Your task to perform on an android device: turn off translation in the chrome app Image 0: 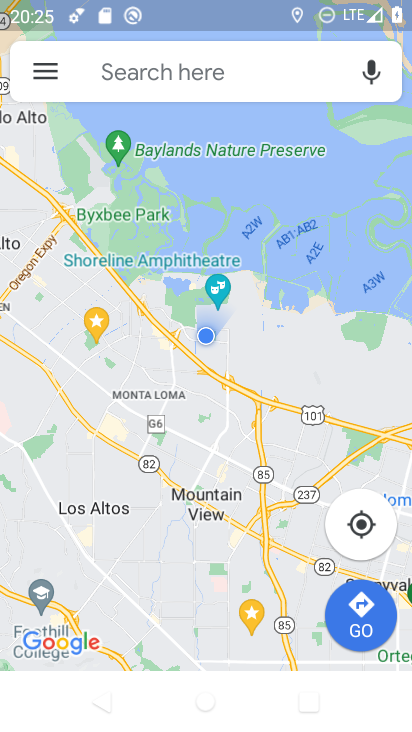
Step 0: press home button
Your task to perform on an android device: turn off translation in the chrome app Image 1: 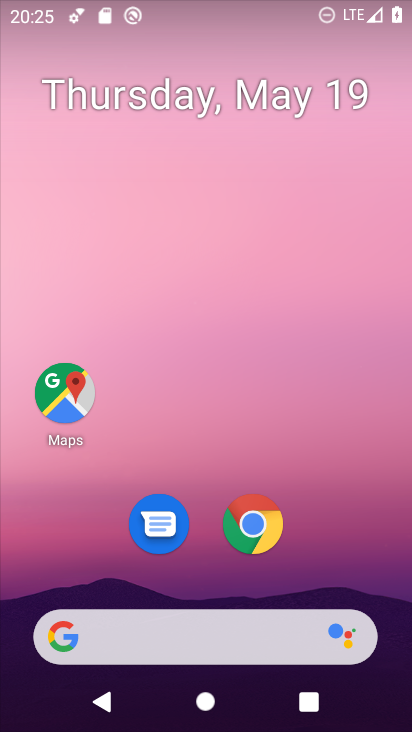
Step 1: click (257, 520)
Your task to perform on an android device: turn off translation in the chrome app Image 2: 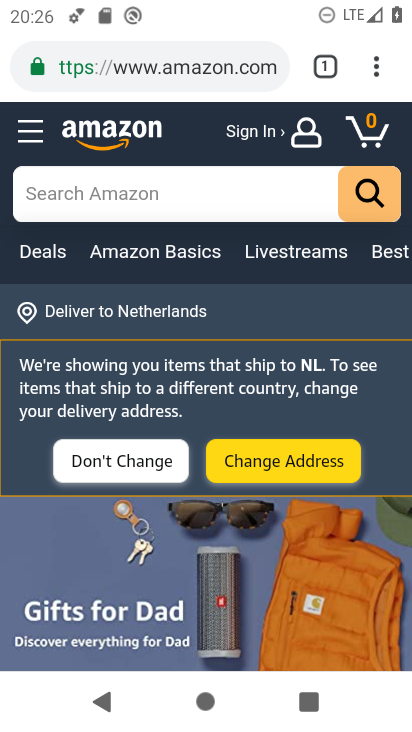
Step 2: click (375, 71)
Your task to perform on an android device: turn off translation in the chrome app Image 3: 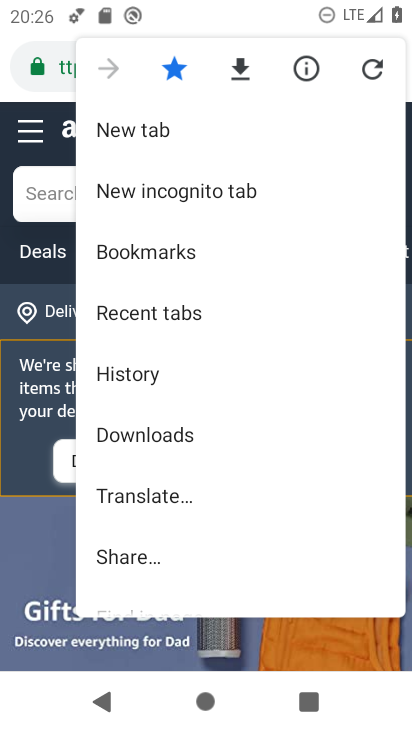
Step 3: drag from (229, 411) to (268, 105)
Your task to perform on an android device: turn off translation in the chrome app Image 4: 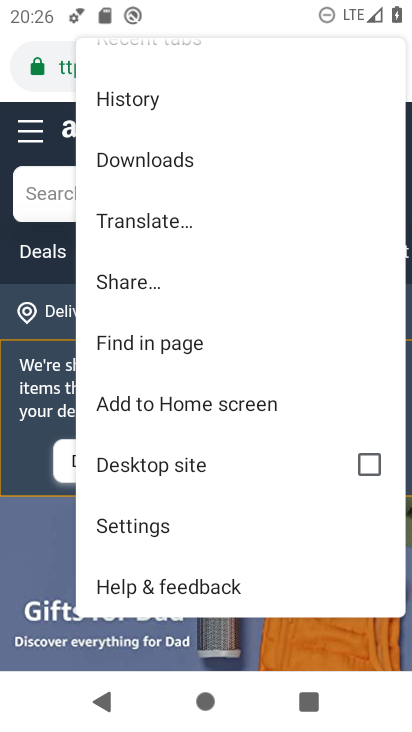
Step 4: click (168, 523)
Your task to perform on an android device: turn off translation in the chrome app Image 5: 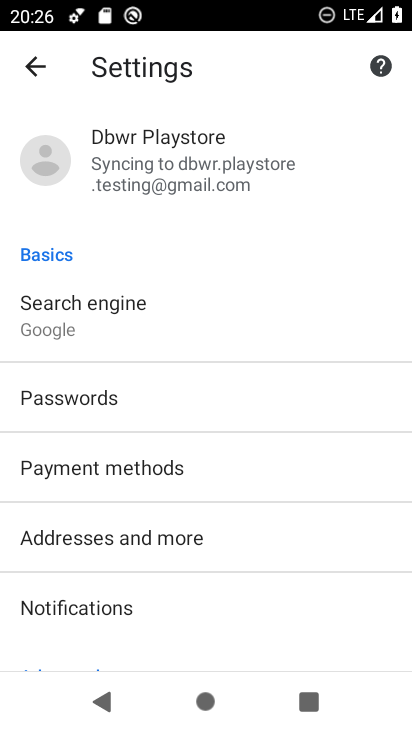
Step 5: drag from (260, 473) to (312, 100)
Your task to perform on an android device: turn off translation in the chrome app Image 6: 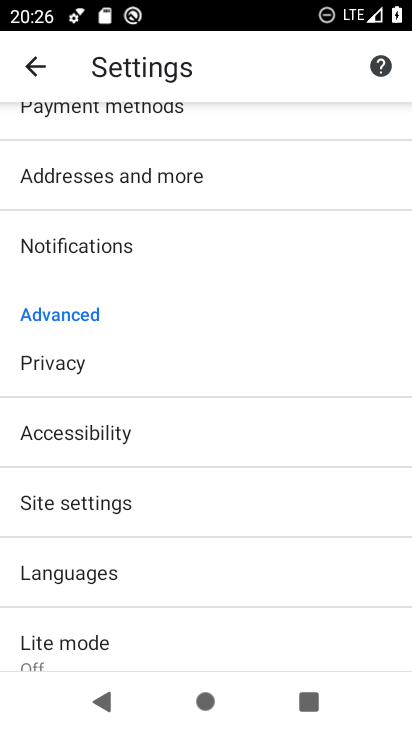
Step 6: drag from (232, 469) to (247, 147)
Your task to perform on an android device: turn off translation in the chrome app Image 7: 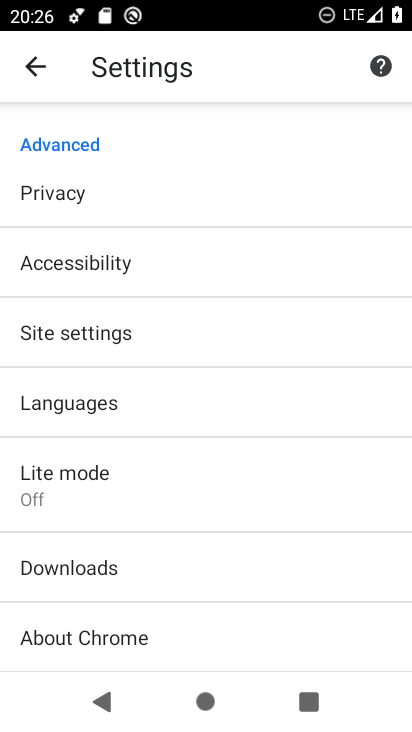
Step 7: click (198, 409)
Your task to perform on an android device: turn off translation in the chrome app Image 8: 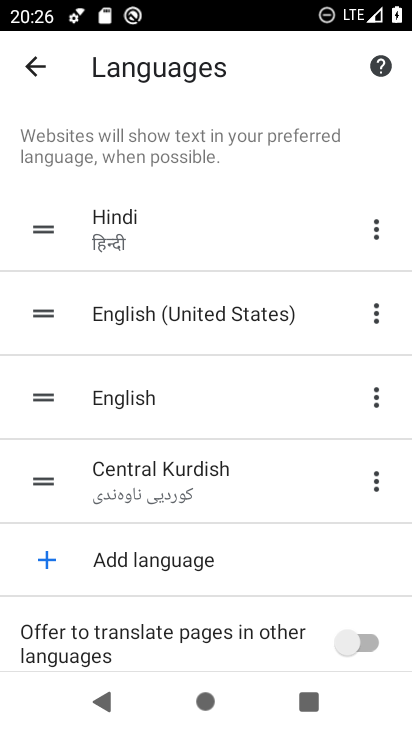
Step 8: task complete